Your task to perform on an android device: Open eBay Image 0: 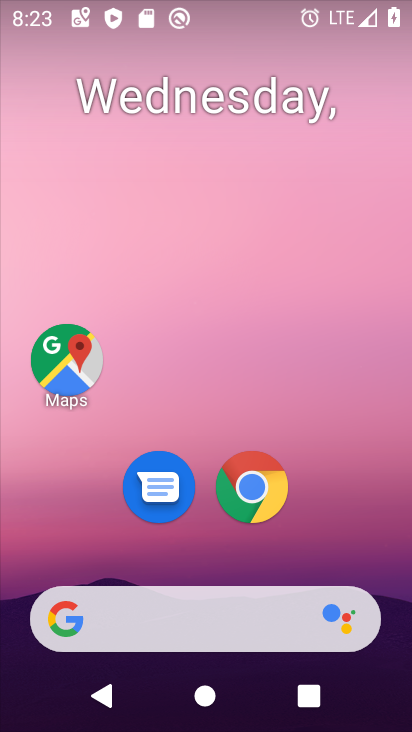
Step 0: click (257, 494)
Your task to perform on an android device: Open eBay Image 1: 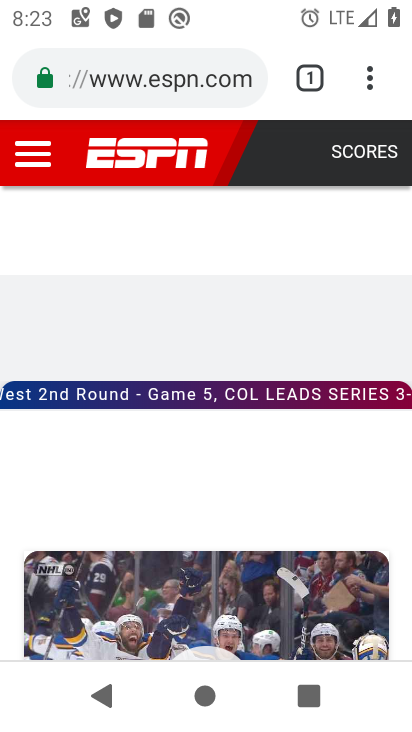
Step 1: click (141, 80)
Your task to perform on an android device: Open eBay Image 2: 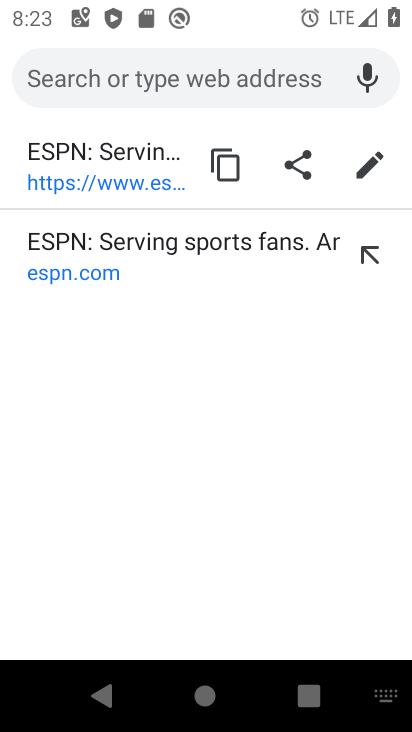
Step 2: type "ebay"
Your task to perform on an android device: Open eBay Image 3: 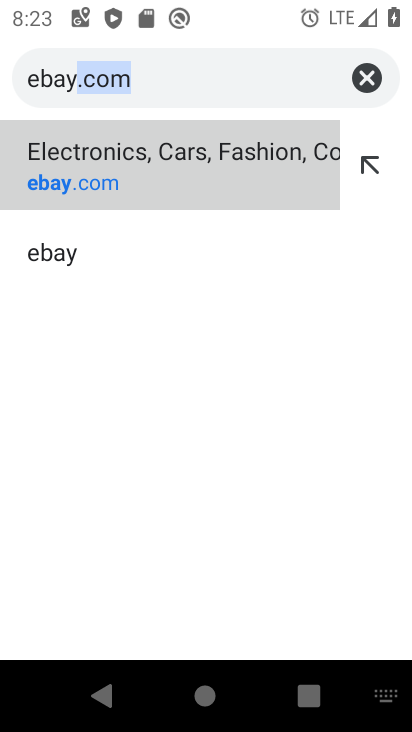
Step 3: click (61, 190)
Your task to perform on an android device: Open eBay Image 4: 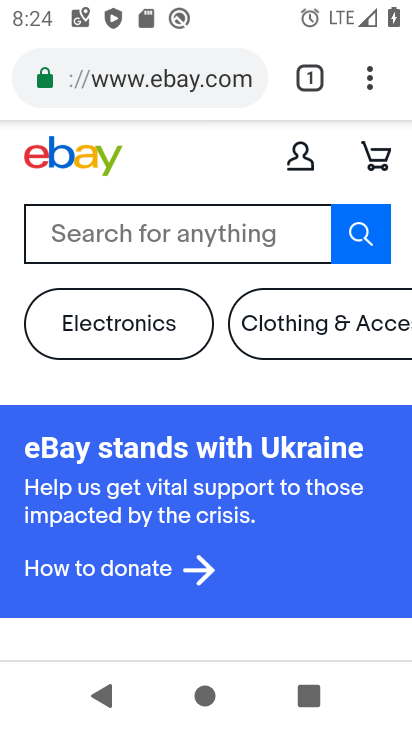
Step 4: task complete